Your task to perform on an android device: find snoozed emails in the gmail app Image 0: 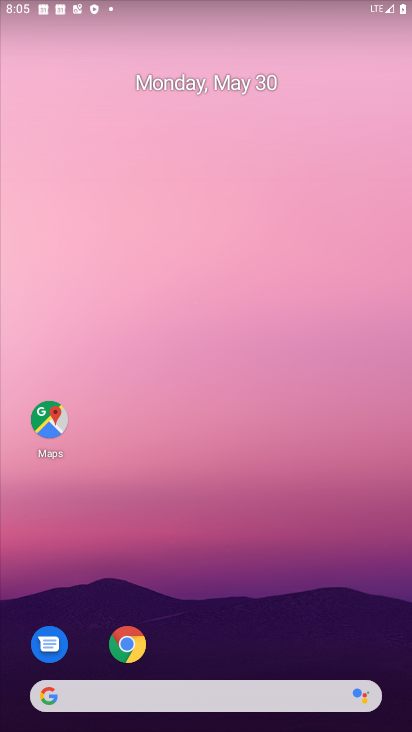
Step 0: drag from (242, 609) to (180, 116)
Your task to perform on an android device: find snoozed emails in the gmail app Image 1: 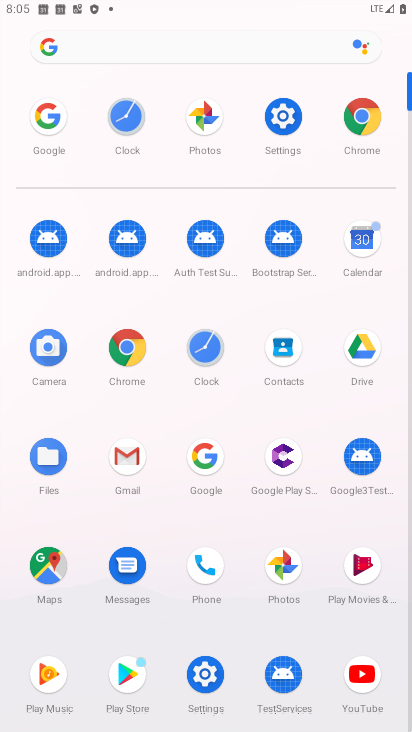
Step 1: click (124, 457)
Your task to perform on an android device: find snoozed emails in the gmail app Image 2: 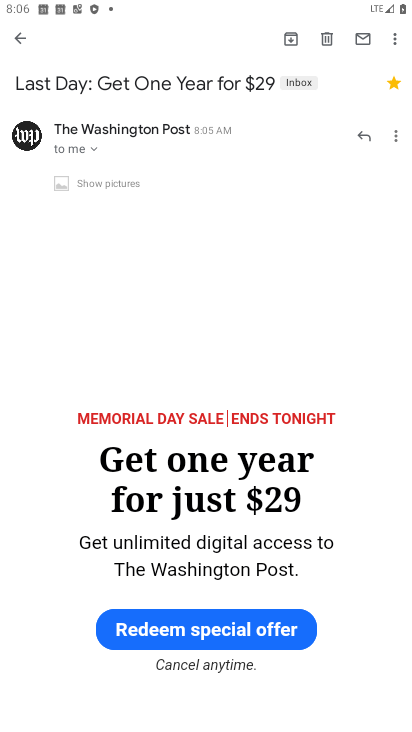
Step 2: click (22, 37)
Your task to perform on an android device: find snoozed emails in the gmail app Image 3: 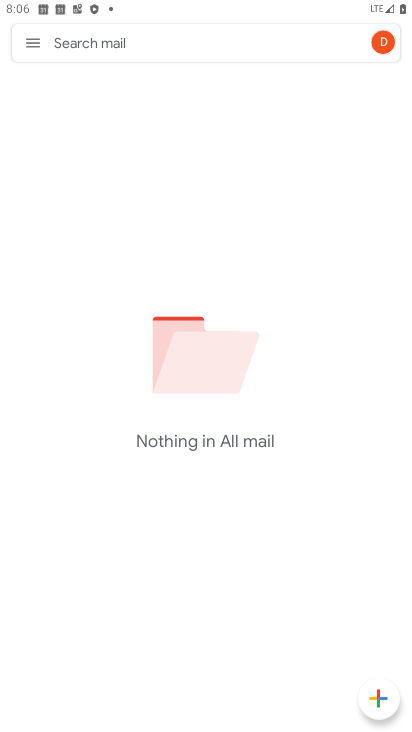
Step 3: click (37, 48)
Your task to perform on an android device: find snoozed emails in the gmail app Image 4: 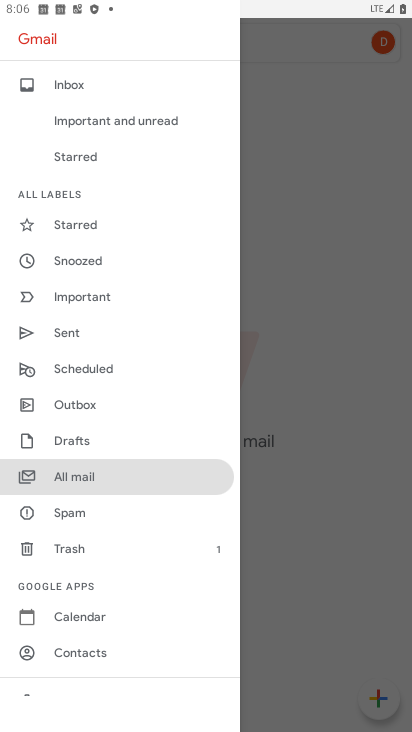
Step 4: click (96, 265)
Your task to perform on an android device: find snoozed emails in the gmail app Image 5: 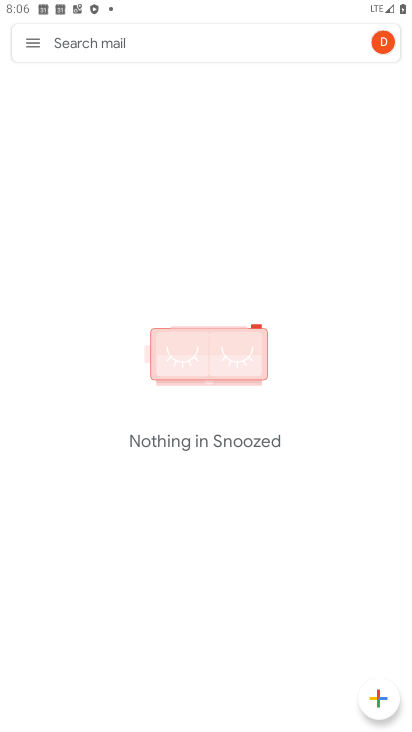
Step 5: click (35, 40)
Your task to perform on an android device: find snoozed emails in the gmail app Image 6: 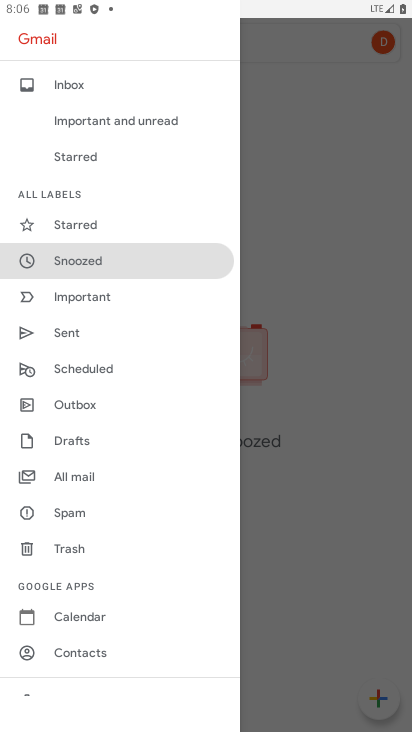
Step 6: click (52, 84)
Your task to perform on an android device: find snoozed emails in the gmail app Image 7: 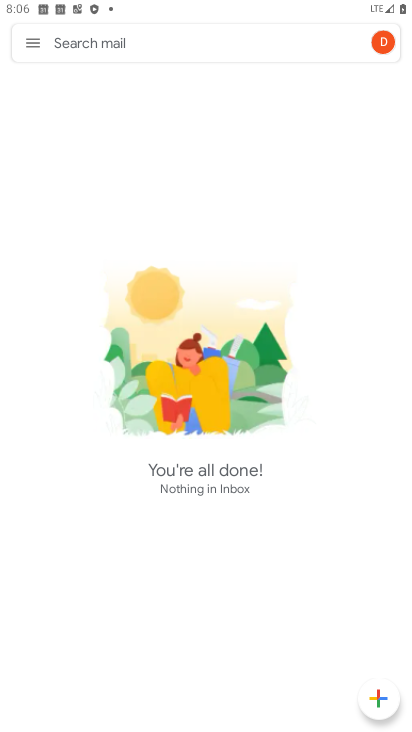
Step 7: task complete